Your task to perform on an android device: Go to battery settings Image 0: 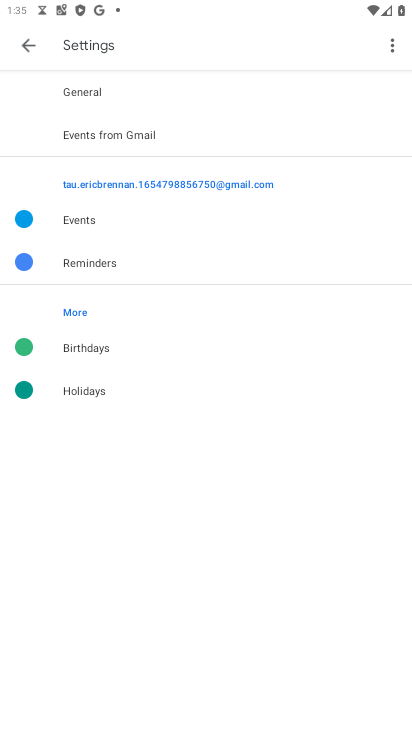
Step 0: press home button
Your task to perform on an android device: Go to battery settings Image 1: 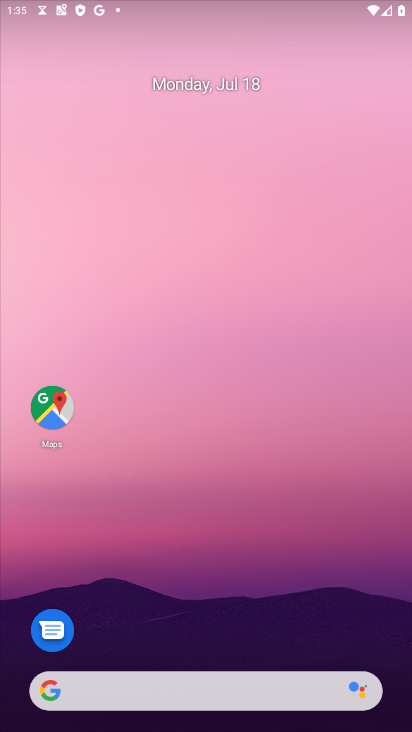
Step 1: drag from (262, 624) to (310, 0)
Your task to perform on an android device: Go to battery settings Image 2: 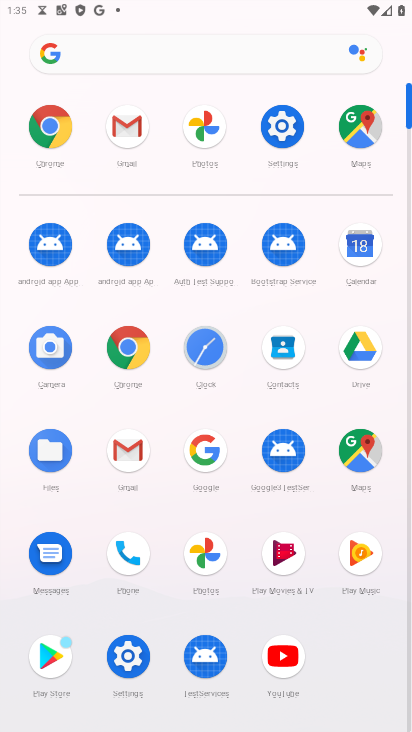
Step 2: click (280, 141)
Your task to perform on an android device: Go to battery settings Image 3: 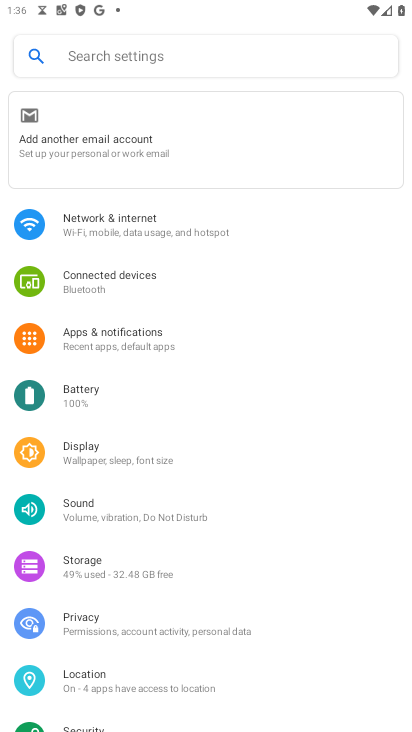
Step 3: click (103, 409)
Your task to perform on an android device: Go to battery settings Image 4: 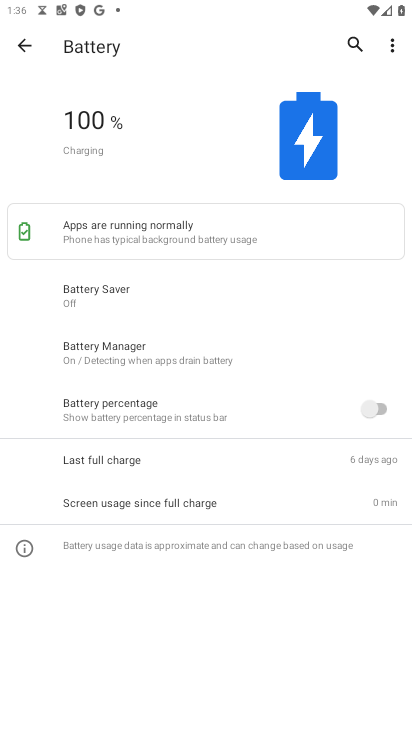
Step 4: task complete